Your task to perform on an android device: Open Wikipedia Image 0: 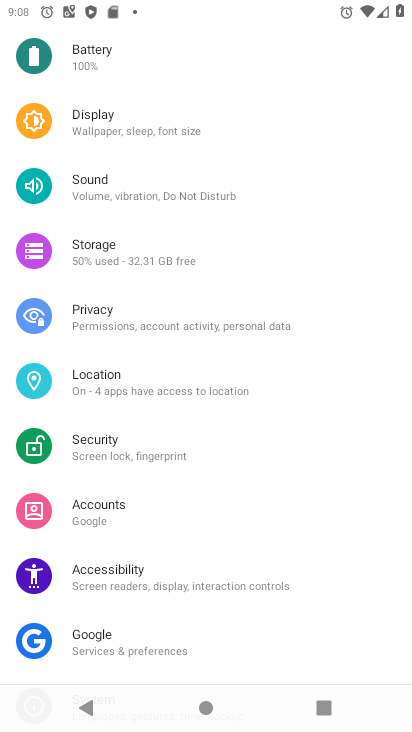
Step 0: press home button
Your task to perform on an android device: Open Wikipedia Image 1: 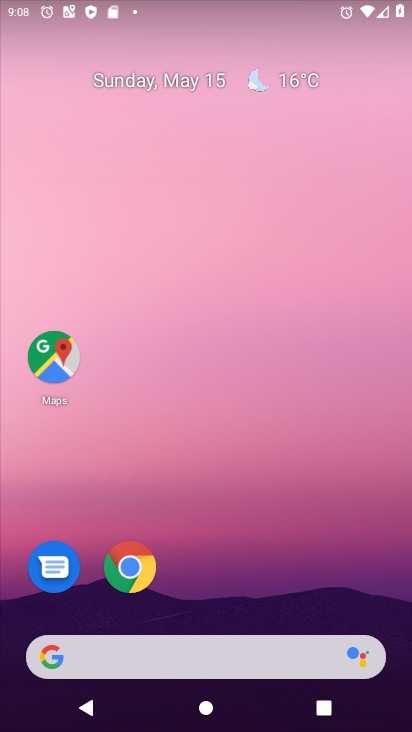
Step 1: click (139, 556)
Your task to perform on an android device: Open Wikipedia Image 2: 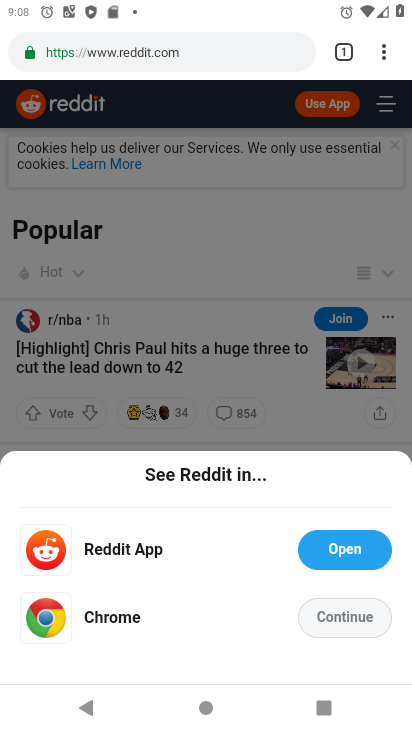
Step 2: click (187, 43)
Your task to perform on an android device: Open Wikipedia Image 3: 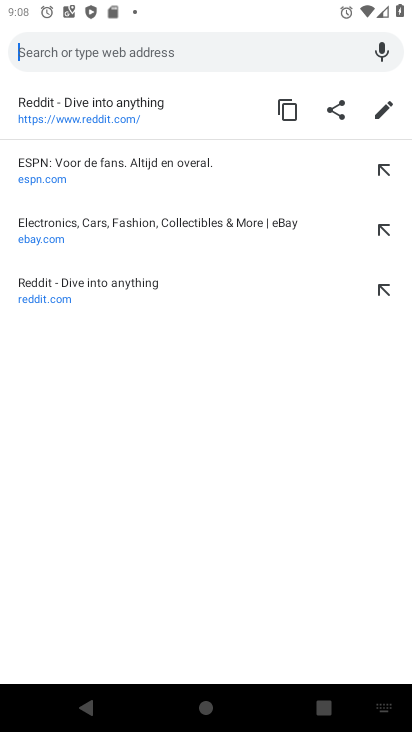
Step 3: type "wikipedia"
Your task to perform on an android device: Open Wikipedia Image 4: 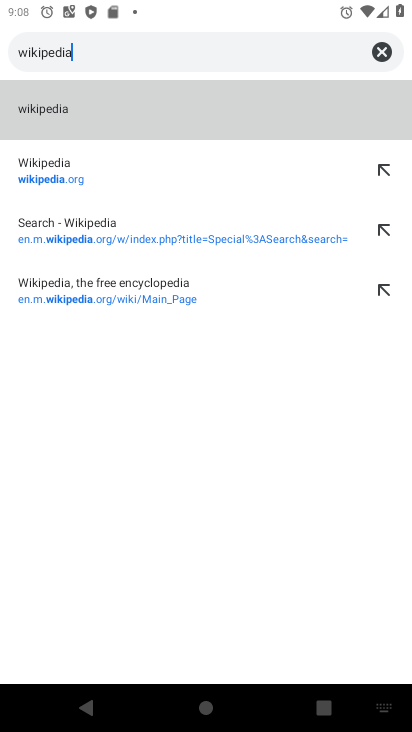
Step 4: click (16, 180)
Your task to perform on an android device: Open Wikipedia Image 5: 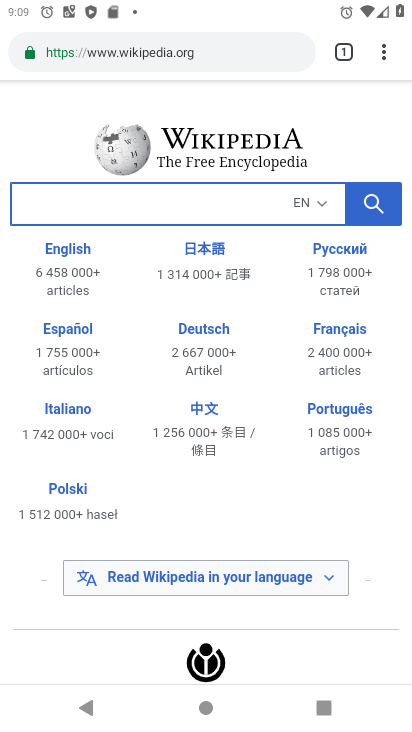
Step 5: task complete